Your task to perform on an android device: Go to CNN.com Image 0: 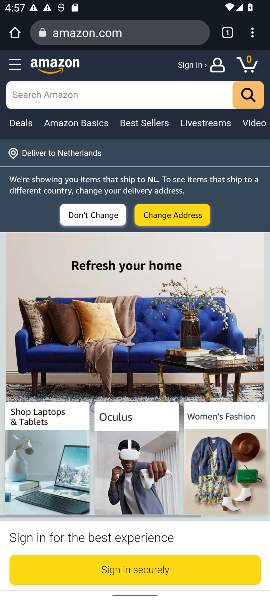
Step 0: press home button
Your task to perform on an android device: Go to CNN.com Image 1: 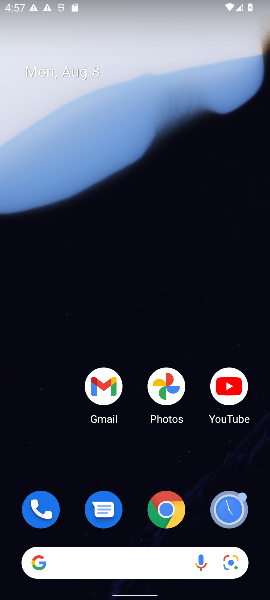
Step 1: click (120, 562)
Your task to perform on an android device: Go to CNN.com Image 2: 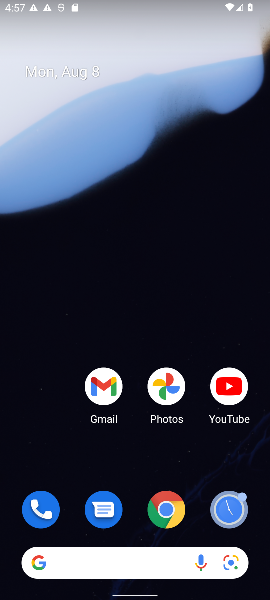
Step 2: click (172, 504)
Your task to perform on an android device: Go to CNN.com Image 3: 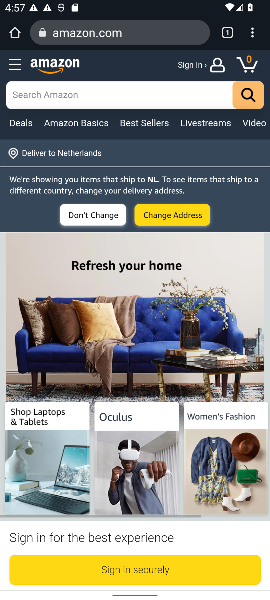
Step 3: click (248, 34)
Your task to perform on an android device: Go to CNN.com Image 4: 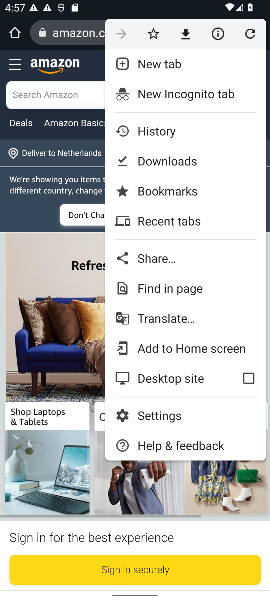
Step 4: click (166, 60)
Your task to perform on an android device: Go to CNN.com Image 5: 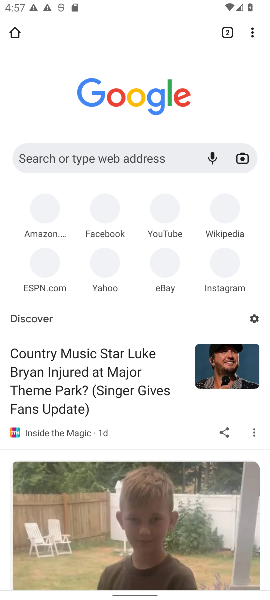
Step 5: click (122, 156)
Your task to perform on an android device: Go to CNN.com Image 6: 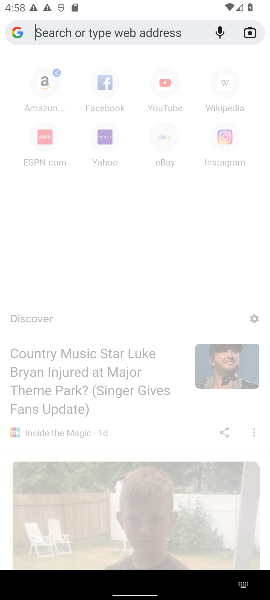
Step 6: type "cnn.com"
Your task to perform on an android device: Go to CNN.com Image 7: 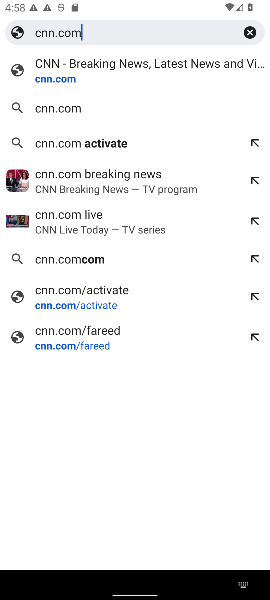
Step 7: click (62, 61)
Your task to perform on an android device: Go to CNN.com Image 8: 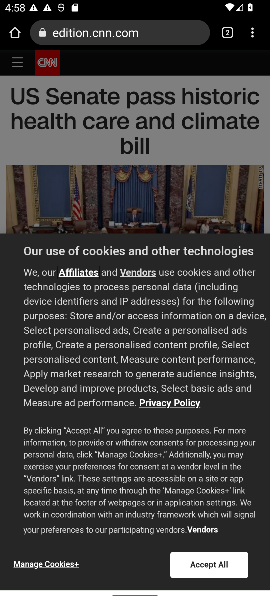
Step 8: click (207, 557)
Your task to perform on an android device: Go to CNN.com Image 9: 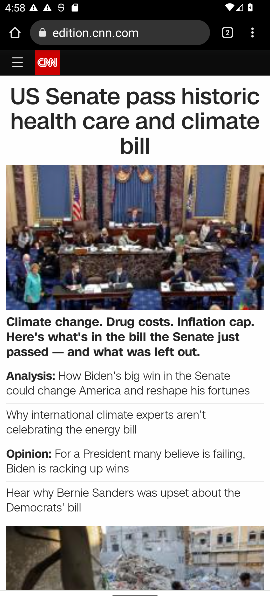
Step 9: task complete